Your task to perform on an android device: Open settings Image 0: 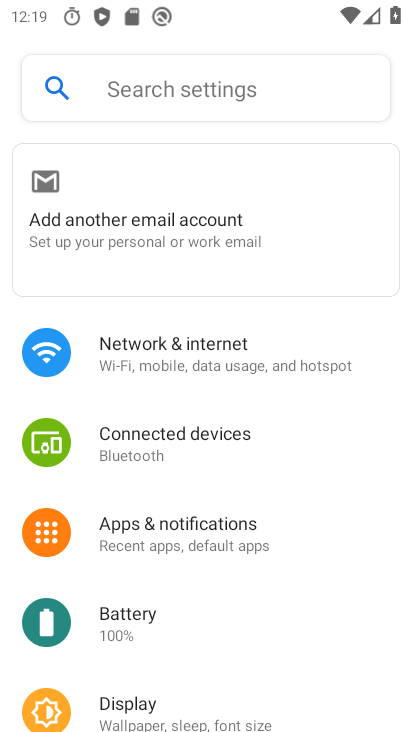
Step 0: drag from (266, 601) to (266, 320)
Your task to perform on an android device: Open settings Image 1: 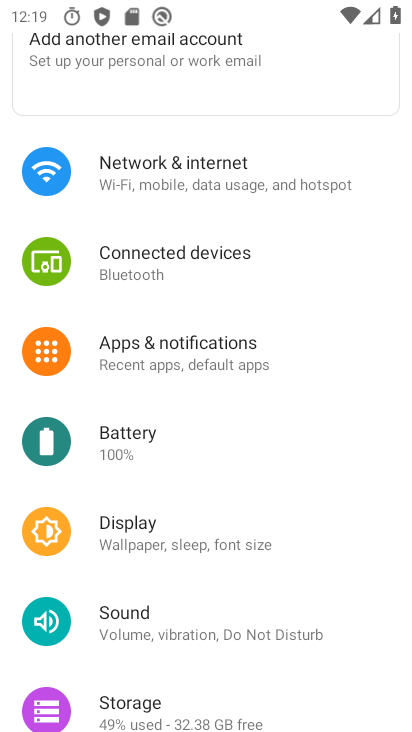
Step 1: task complete